Your task to perform on an android device: Open the stopwatch Image 0: 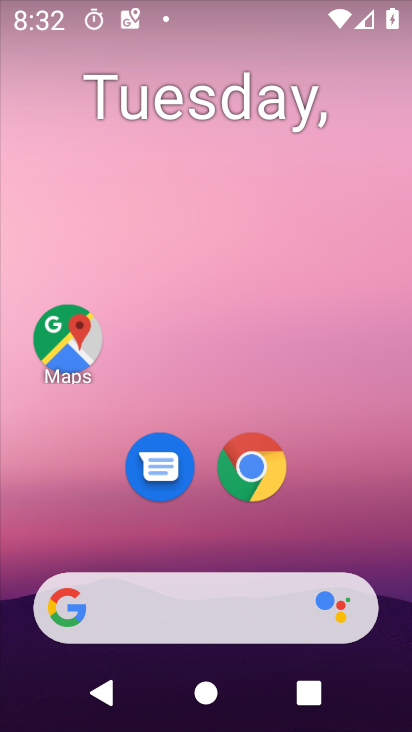
Step 0: drag from (357, 558) to (345, 169)
Your task to perform on an android device: Open the stopwatch Image 1: 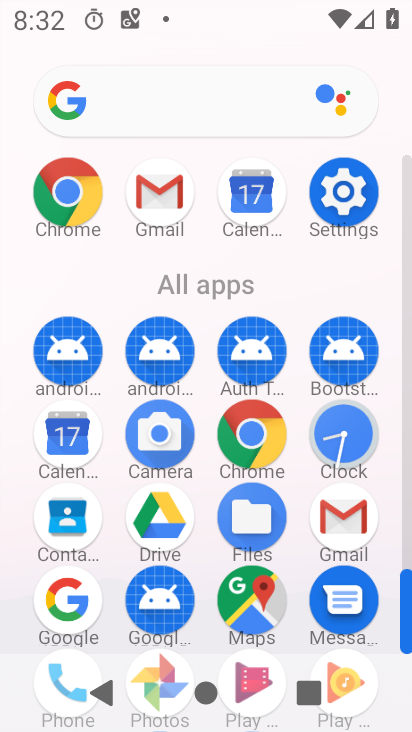
Step 1: click (355, 431)
Your task to perform on an android device: Open the stopwatch Image 2: 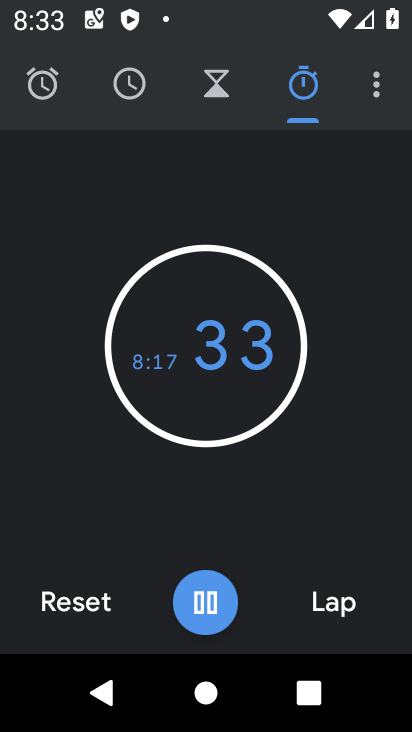
Step 2: task complete